Your task to perform on an android device: change keyboard looks Image 0: 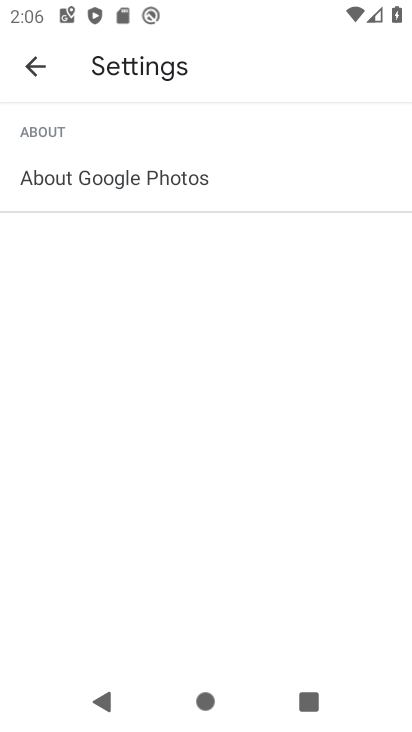
Step 0: press home button
Your task to perform on an android device: change keyboard looks Image 1: 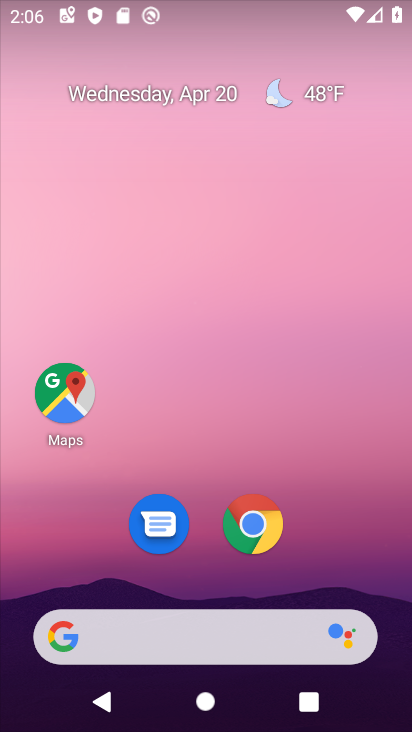
Step 1: drag from (351, 564) to (368, 111)
Your task to perform on an android device: change keyboard looks Image 2: 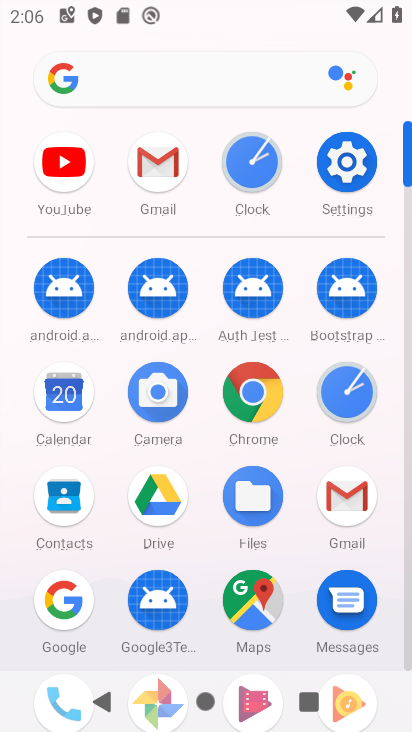
Step 2: click (343, 154)
Your task to perform on an android device: change keyboard looks Image 3: 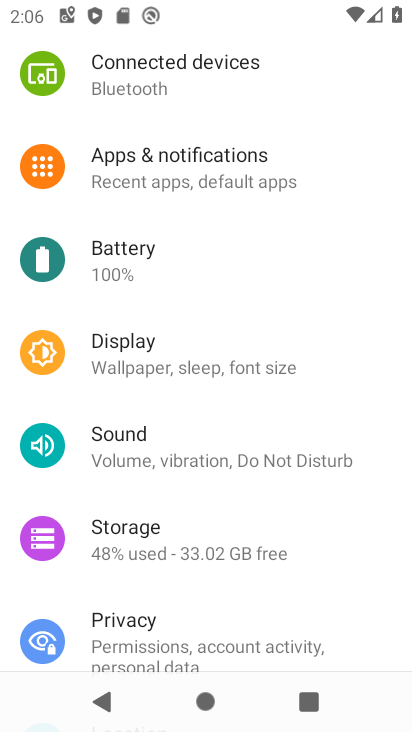
Step 3: drag from (266, 586) to (209, 62)
Your task to perform on an android device: change keyboard looks Image 4: 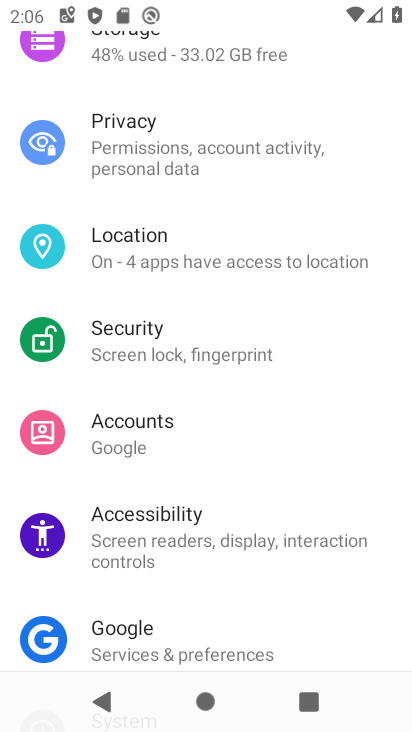
Step 4: drag from (216, 585) to (208, 222)
Your task to perform on an android device: change keyboard looks Image 5: 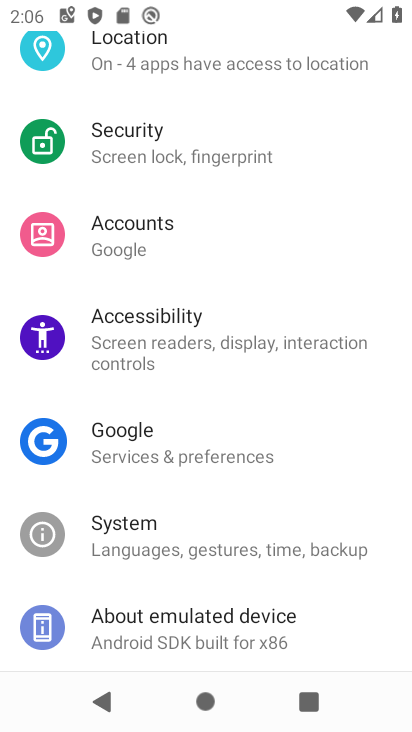
Step 5: click (216, 538)
Your task to perform on an android device: change keyboard looks Image 6: 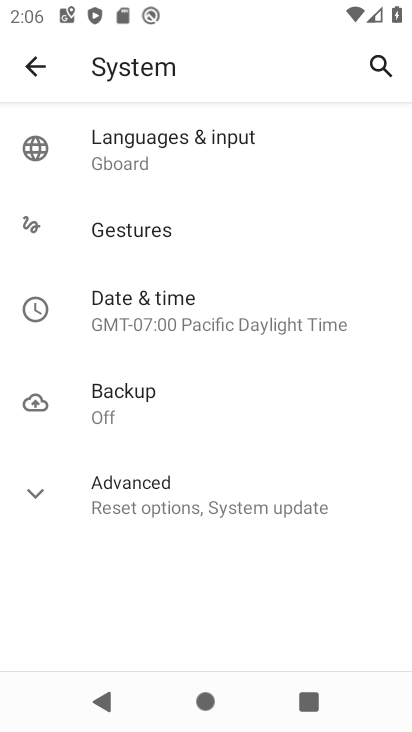
Step 6: click (135, 141)
Your task to perform on an android device: change keyboard looks Image 7: 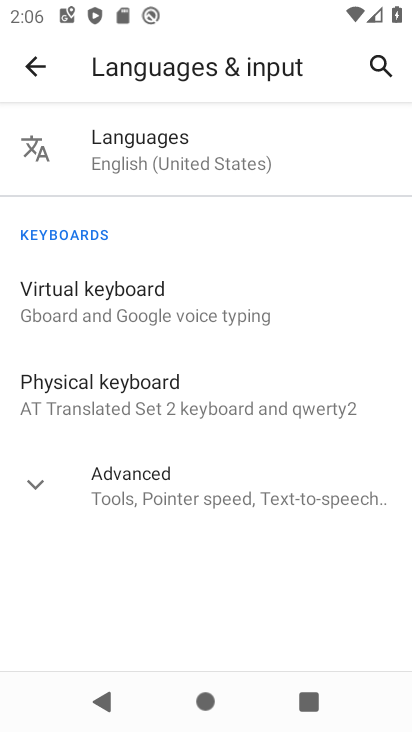
Step 7: click (173, 306)
Your task to perform on an android device: change keyboard looks Image 8: 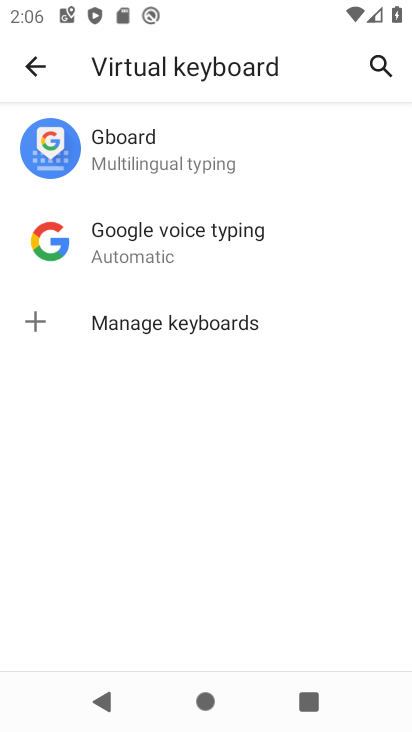
Step 8: click (136, 147)
Your task to perform on an android device: change keyboard looks Image 9: 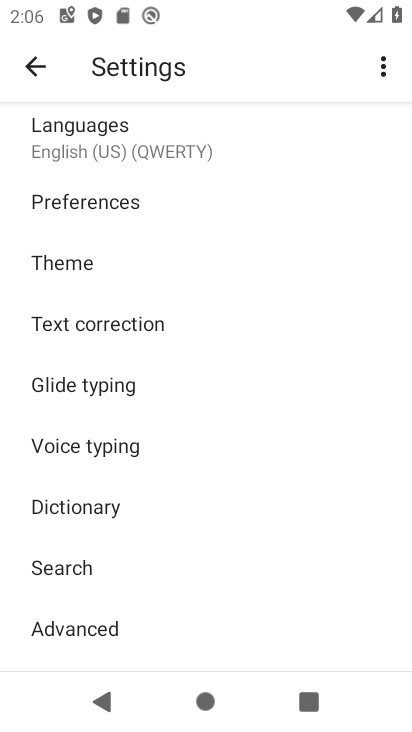
Step 9: click (119, 265)
Your task to perform on an android device: change keyboard looks Image 10: 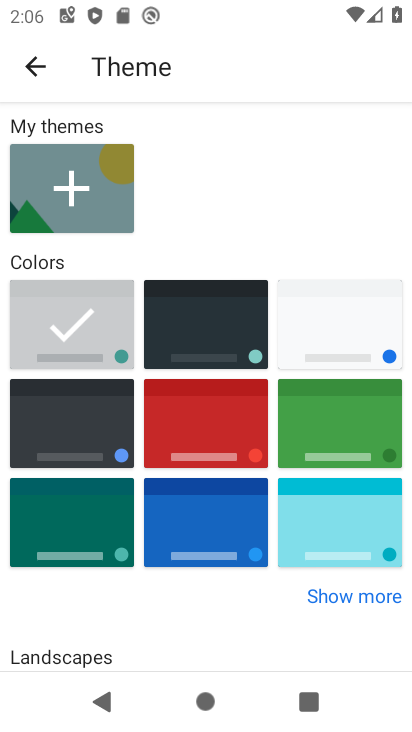
Step 10: click (176, 317)
Your task to perform on an android device: change keyboard looks Image 11: 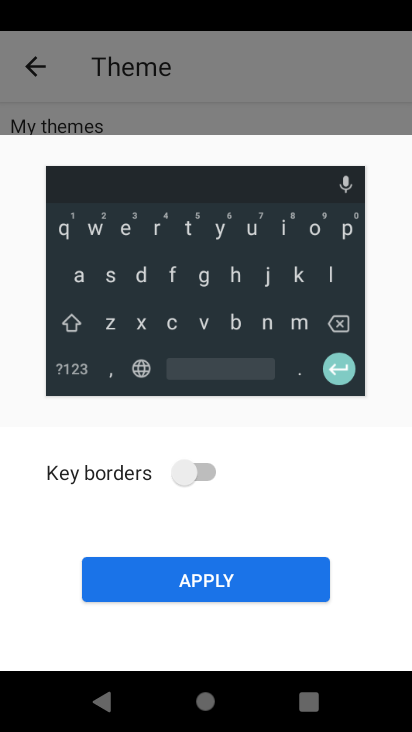
Step 11: click (207, 471)
Your task to perform on an android device: change keyboard looks Image 12: 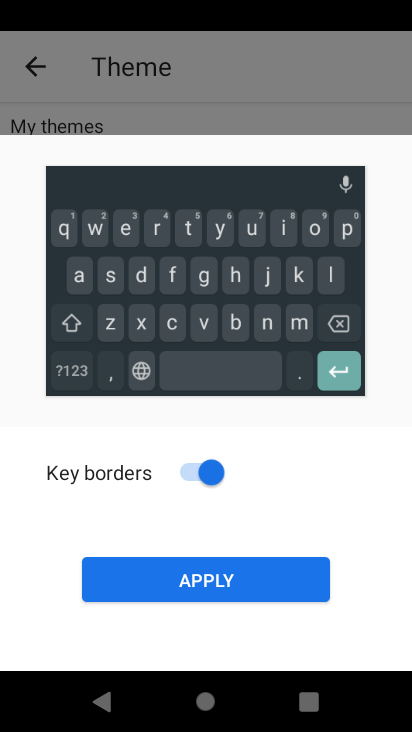
Step 12: click (266, 591)
Your task to perform on an android device: change keyboard looks Image 13: 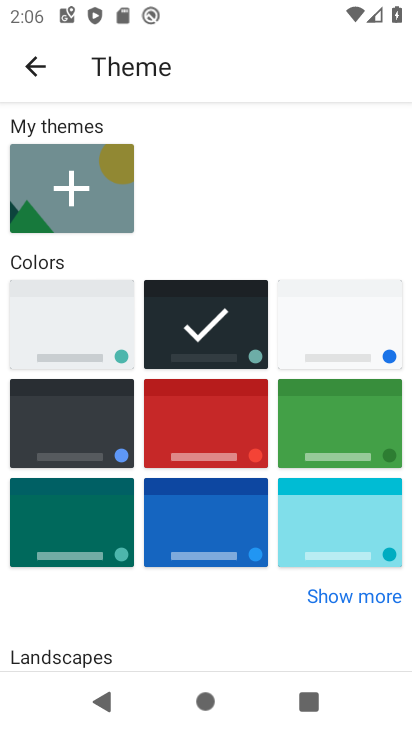
Step 13: task complete